Your task to perform on an android device: turn notification dots on Image 0: 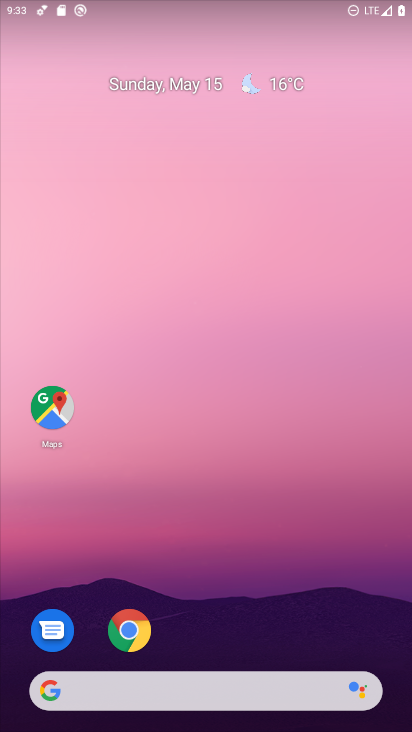
Step 0: drag from (194, 644) to (286, 109)
Your task to perform on an android device: turn notification dots on Image 1: 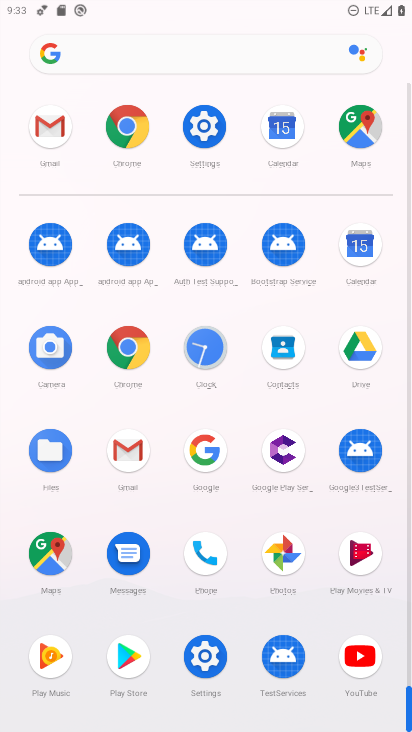
Step 1: click (192, 667)
Your task to perform on an android device: turn notification dots on Image 2: 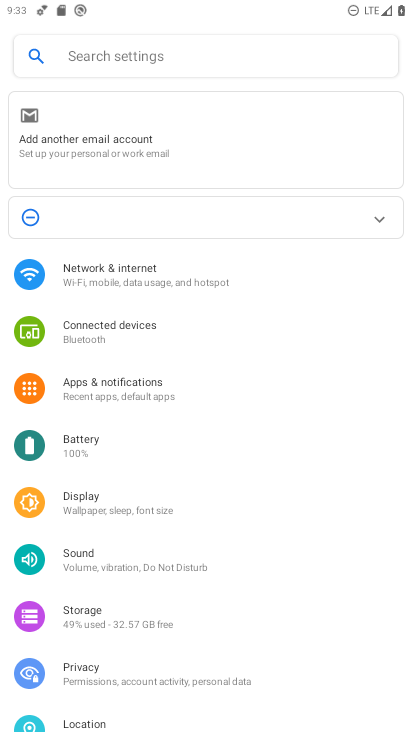
Step 2: click (157, 400)
Your task to perform on an android device: turn notification dots on Image 3: 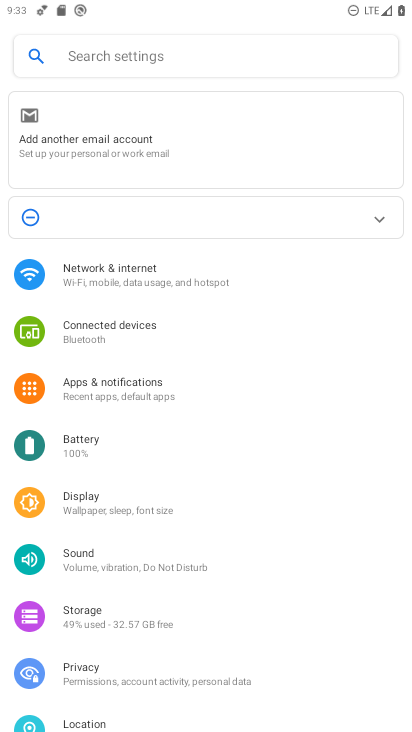
Step 3: click (157, 400)
Your task to perform on an android device: turn notification dots on Image 4: 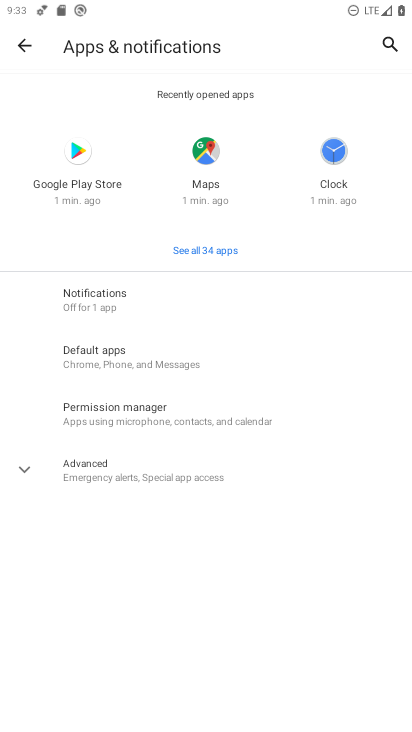
Step 4: click (130, 457)
Your task to perform on an android device: turn notification dots on Image 5: 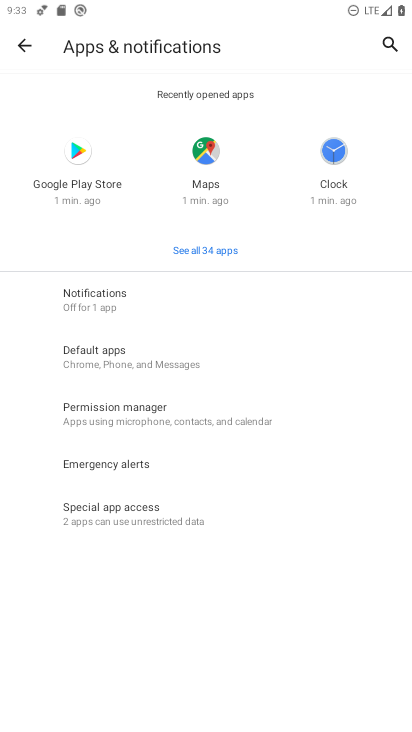
Step 5: click (186, 308)
Your task to perform on an android device: turn notification dots on Image 6: 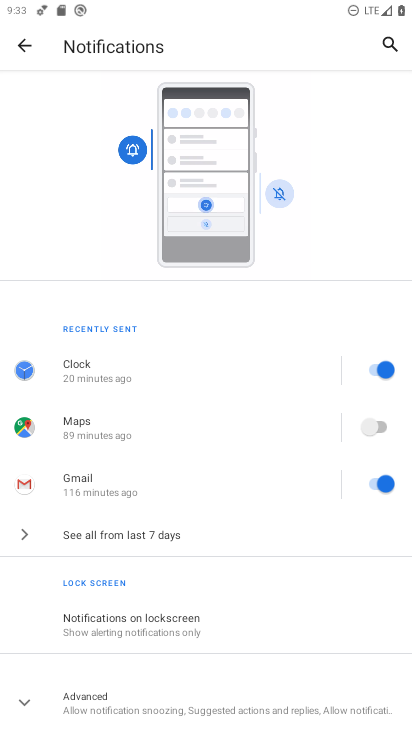
Step 6: click (143, 690)
Your task to perform on an android device: turn notification dots on Image 7: 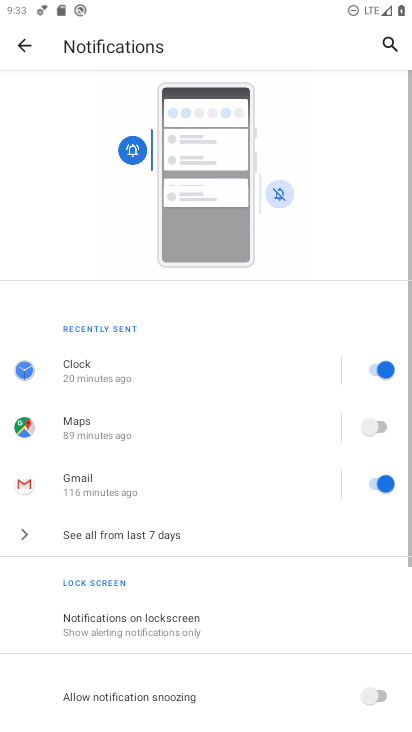
Step 7: task complete